Your task to perform on an android device: Open Amazon Image 0: 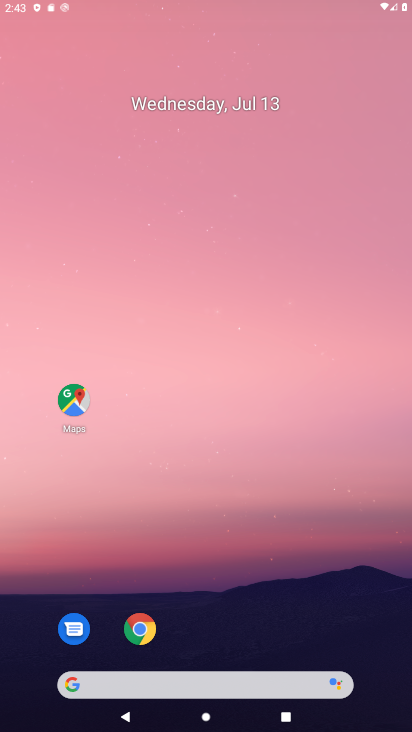
Step 0: drag from (279, 607) to (284, 316)
Your task to perform on an android device: Open Amazon Image 1: 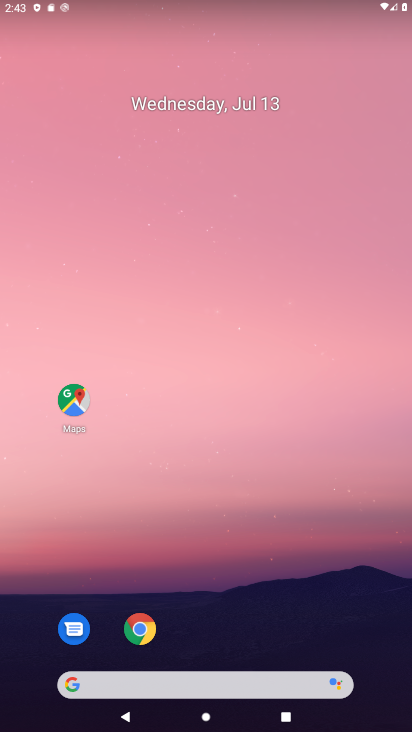
Step 1: click (133, 609)
Your task to perform on an android device: Open Amazon Image 2: 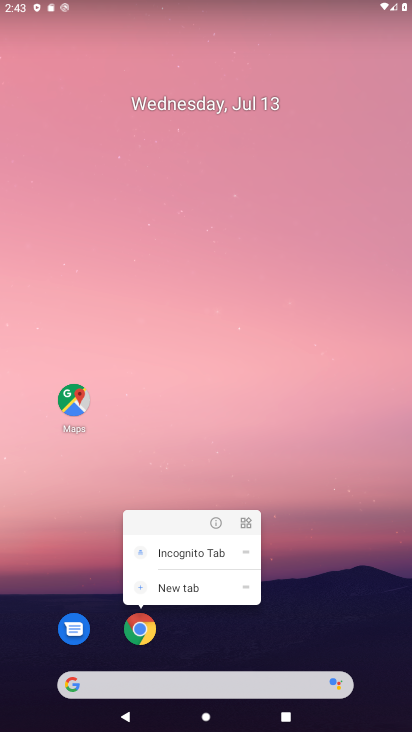
Step 2: click (133, 609)
Your task to perform on an android device: Open Amazon Image 3: 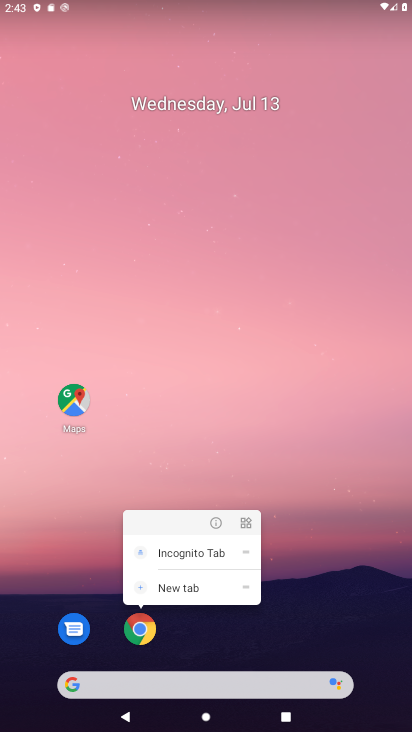
Step 3: click (133, 609)
Your task to perform on an android device: Open Amazon Image 4: 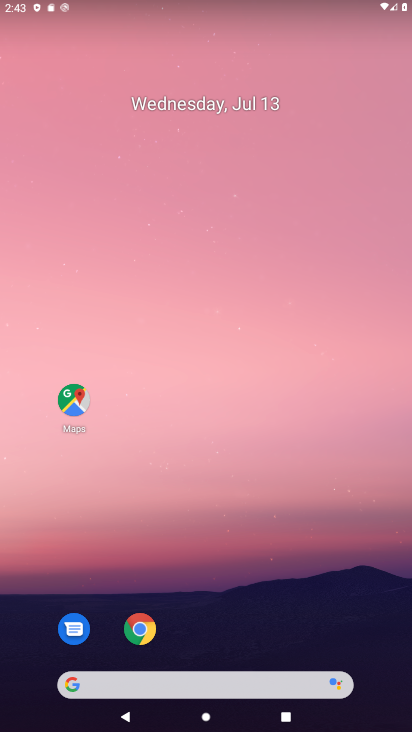
Step 4: click (135, 638)
Your task to perform on an android device: Open Amazon Image 5: 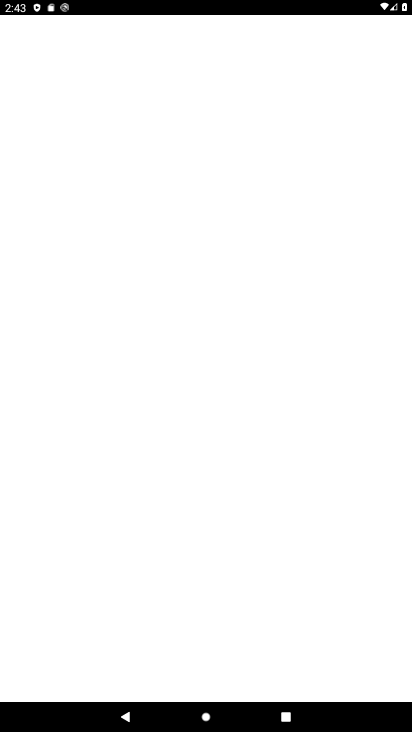
Step 5: click (135, 634)
Your task to perform on an android device: Open Amazon Image 6: 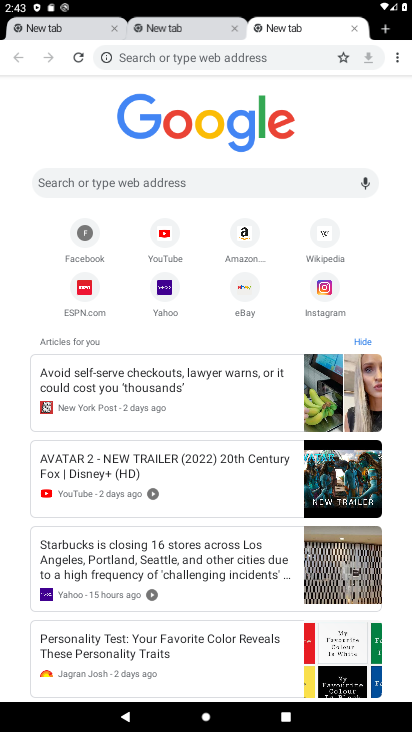
Step 6: click (241, 232)
Your task to perform on an android device: Open Amazon Image 7: 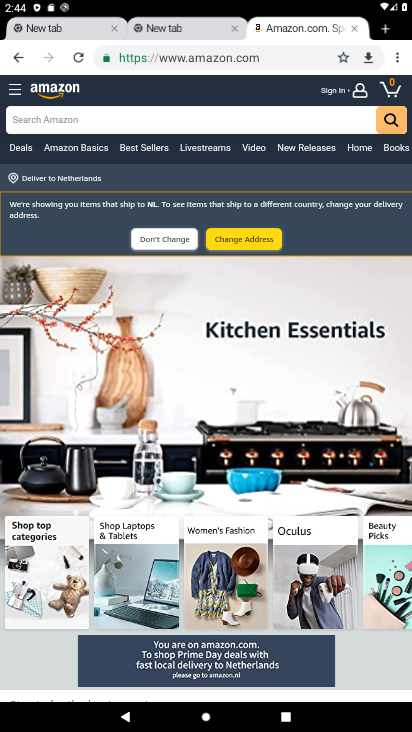
Step 7: task complete